Your task to perform on an android device: all mails in gmail Image 0: 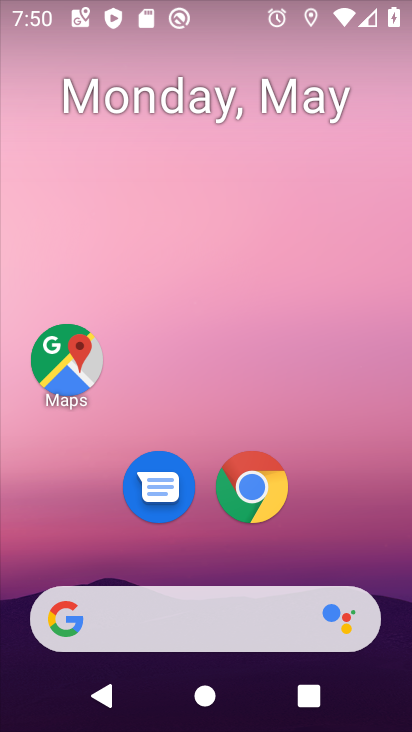
Step 0: press home button
Your task to perform on an android device: all mails in gmail Image 1: 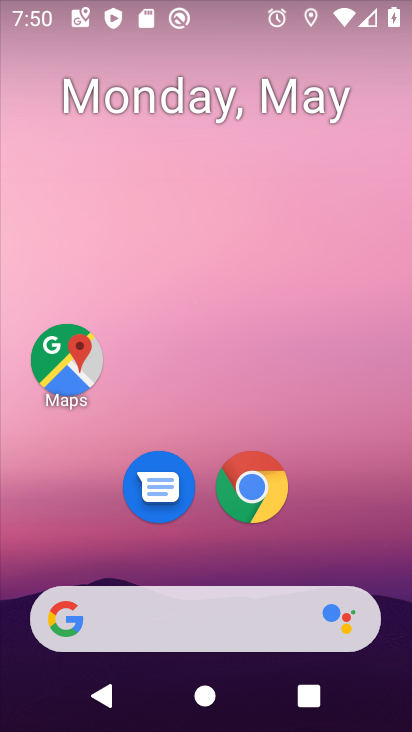
Step 1: drag from (300, 569) to (263, 144)
Your task to perform on an android device: all mails in gmail Image 2: 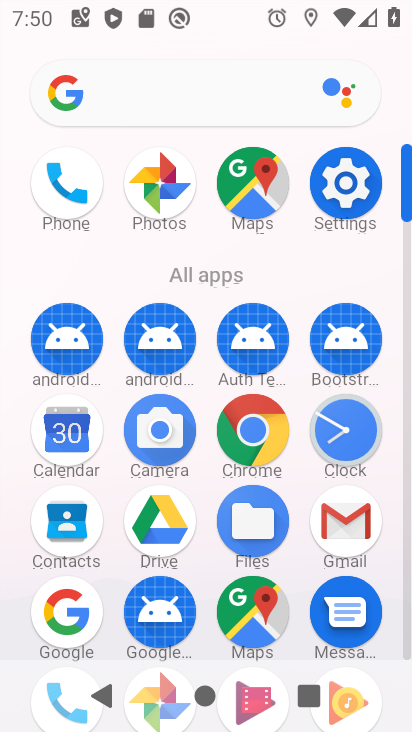
Step 2: click (351, 516)
Your task to perform on an android device: all mails in gmail Image 3: 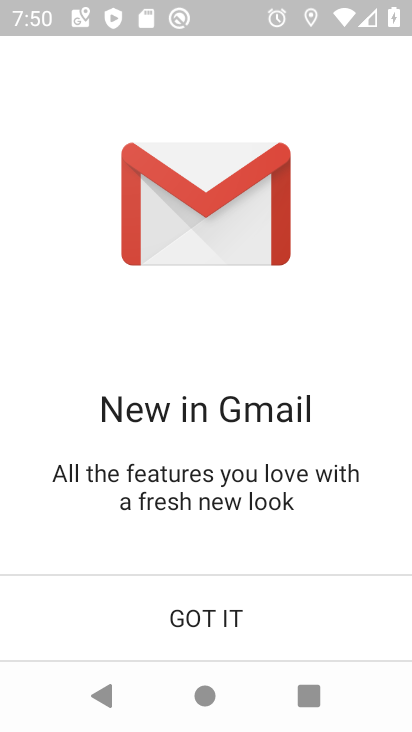
Step 3: click (239, 605)
Your task to perform on an android device: all mails in gmail Image 4: 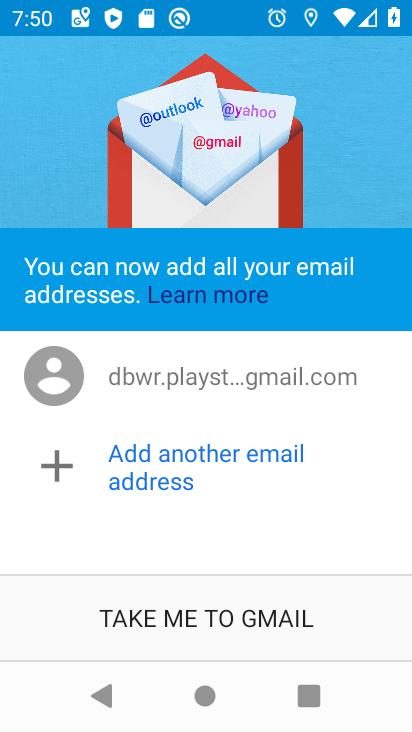
Step 4: click (248, 626)
Your task to perform on an android device: all mails in gmail Image 5: 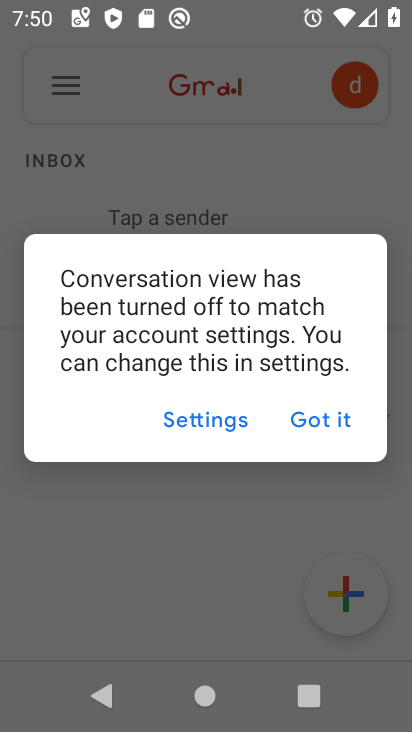
Step 5: click (326, 434)
Your task to perform on an android device: all mails in gmail Image 6: 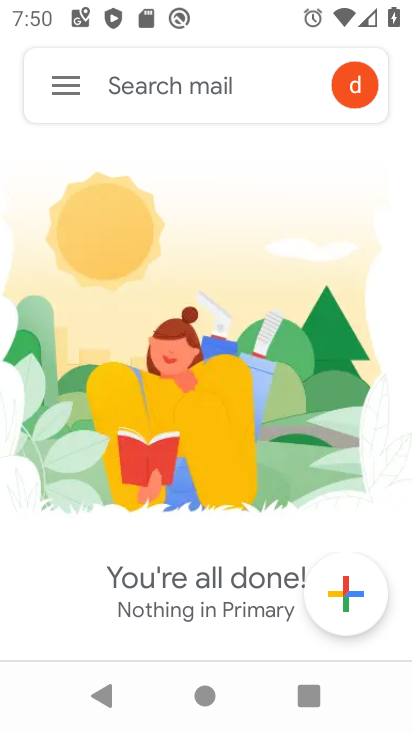
Step 6: click (64, 92)
Your task to perform on an android device: all mails in gmail Image 7: 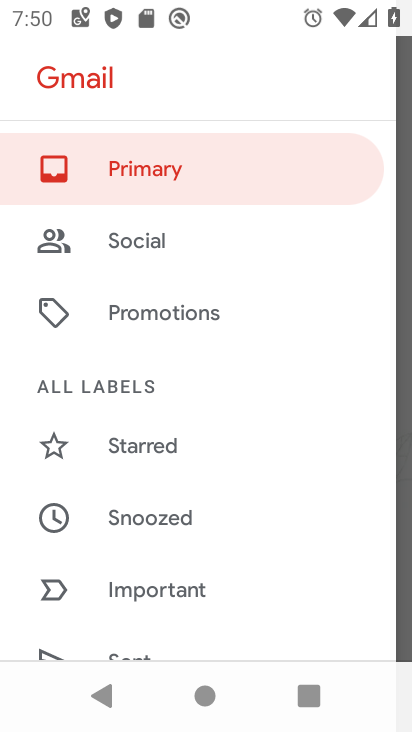
Step 7: drag from (278, 562) to (245, 111)
Your task to perform on an android device: all mails in gmail Image 8: 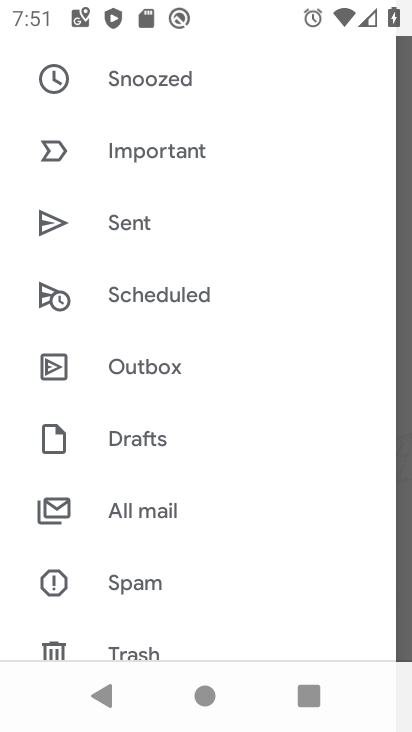
Step 8: click (152, 513)
Your task to perform on an android device: all mails in gmail Image 9: 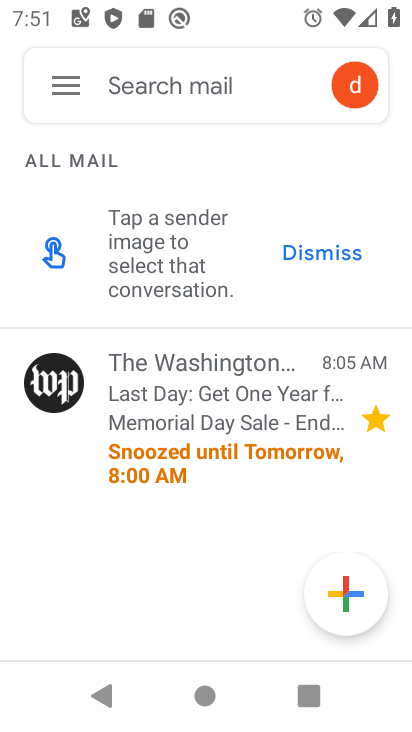
Step 9: task complete